Your task to perform on an android device: turn on wifi Image 0: 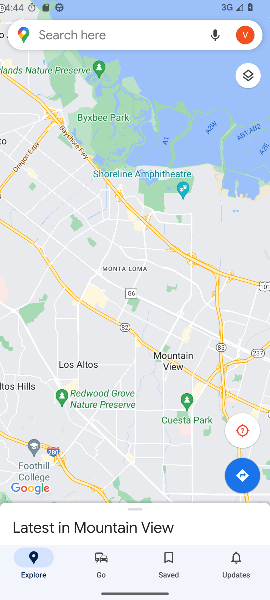
Step 0: press home button
Your task to perform on an android device: turn on wifi Image 1: 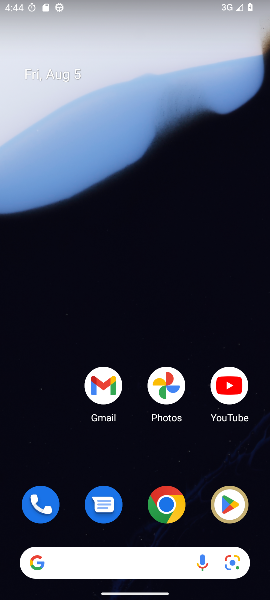
Step 1: drag from (9, 568) to (169, 344)
Your task to perform on an android device: turn on wifi Image 2: 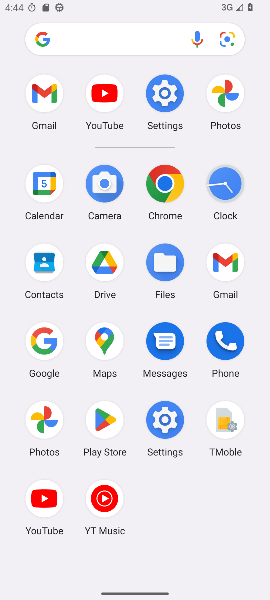
Step 2: click (168, 426)
Your task to perform on an android device: turn on wifi Image 3: 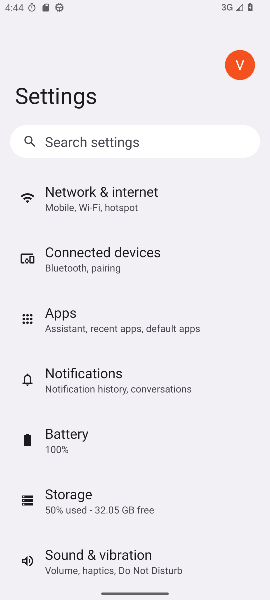
Step 3: click (106, 202)
Your task to perform on an android device: turn on wifi Image 4: 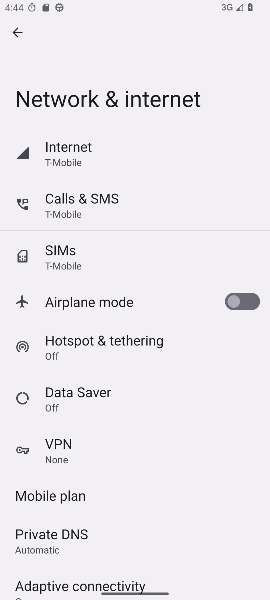
Step 4: click (64, 147)
Your task to perform on an android device: turn on wifi Image 5: 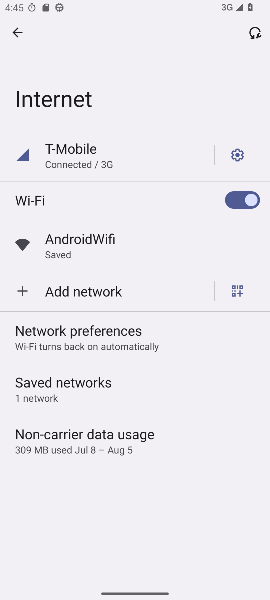
Step 5: task complete